Your task to perform on an android device: visit the assistant section in the google photos Image 0: 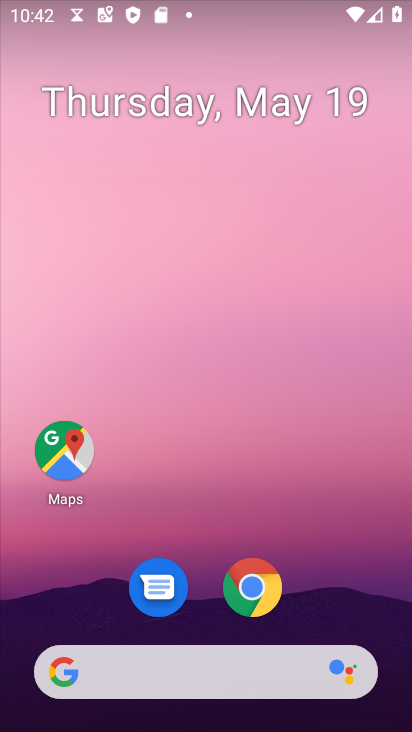
Step 0: drag from (234, 677) to (234, 198)
Your task to perform on an android device: visit the assistant section in the google photos Image 1: 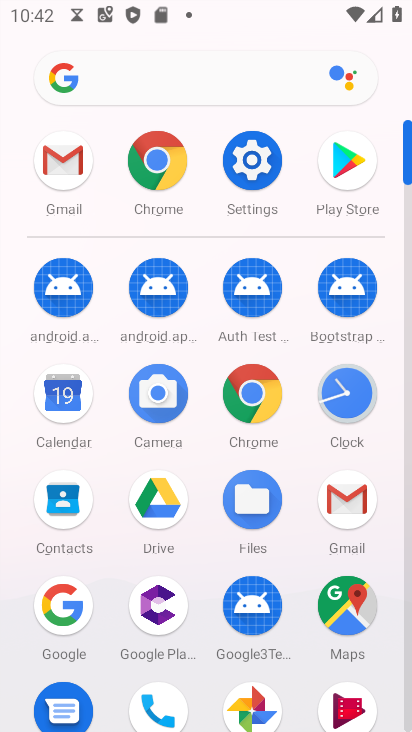
Step 1: click (259, 696)
Your task to perform on an android device: visit the assistant section in the google photos Image 2: 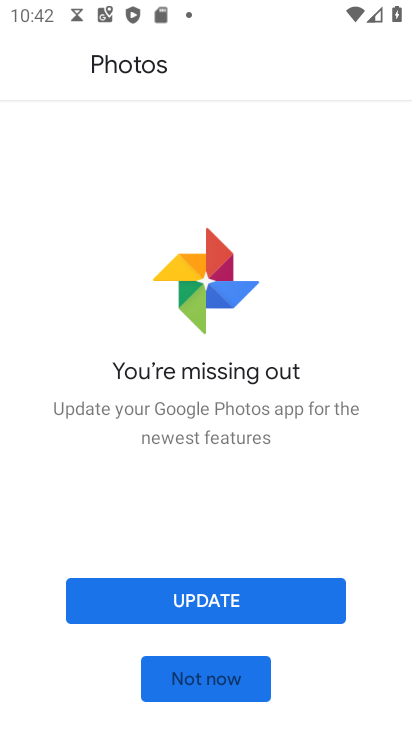
Step 2: click (140, 680)
Your task to perform on an android device: visit the assistant section in the google photos Image 3: 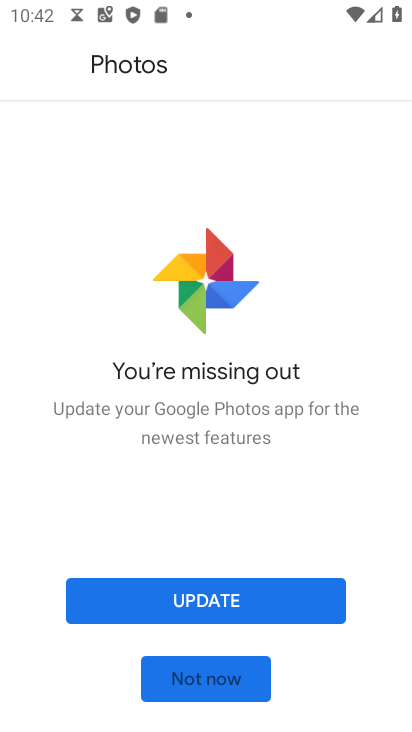
Step 3: click (158, 681)
Your task to perform on an android device: visit the assistant section in the google photos Image 4: 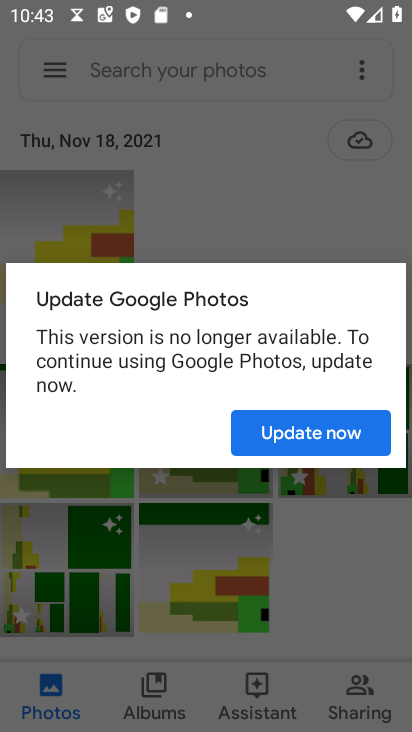
Step 4: click (302, 440)
Your task to perform on an android device: visit the assistant section in the google photos Image 5: 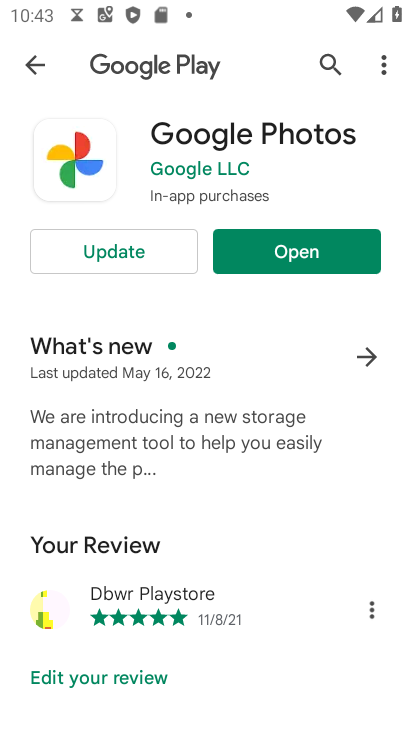
Step 5: click (122, 254)
Your task to perform on an android device: visit the assistant section in the google photos Image 6: 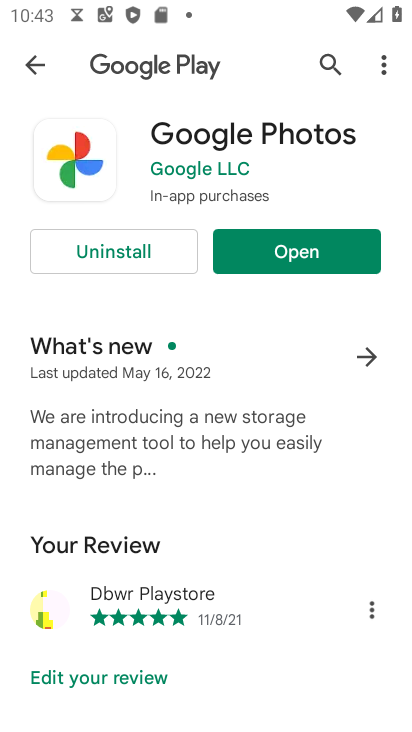
Step 6: click (256, 249)
Your task to perform on an android device: visit the assistant section in the google photos Image 7: 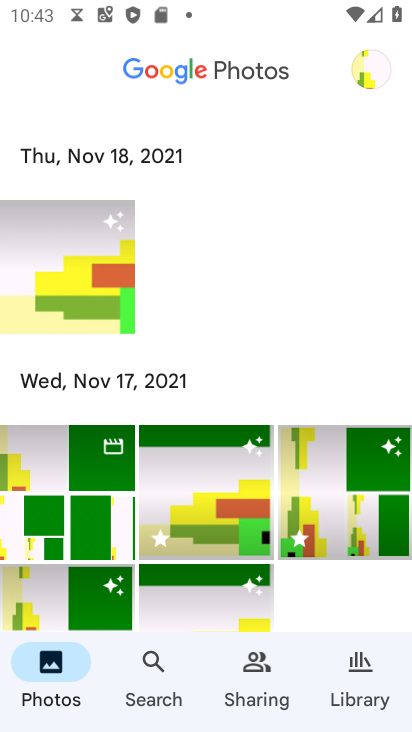
Step 7: task complete